Your task to perform on an android device: show emergency info Image 0: 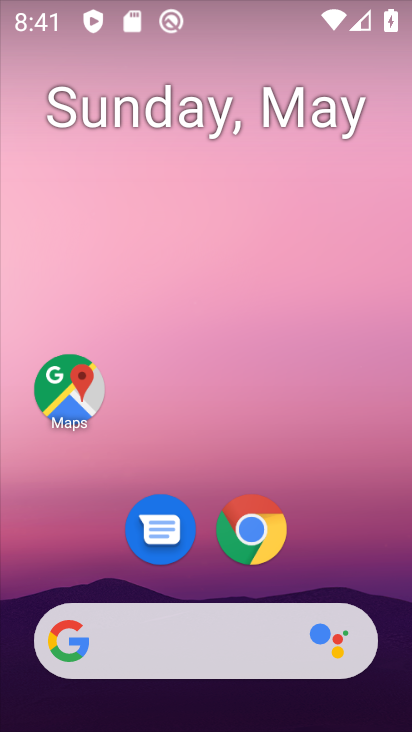
Step 0: drag from (347, 547) to (370, 1)
Your task to perform on an android device: show emergency info Image 1: 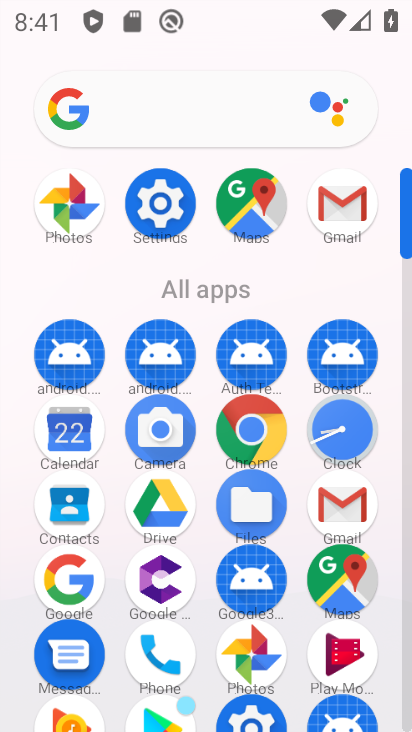
Step 1: click (153, 205)
Your task to perform on an android device: show emergency info Image 2: 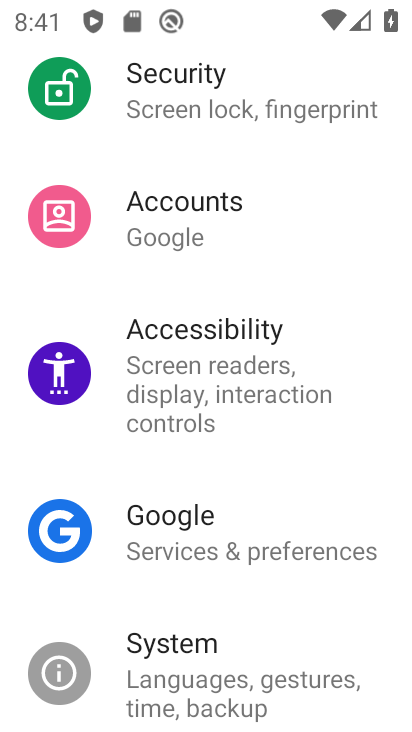
Step 2: drag from (314, 630) to (336, 0)
Your task to perform on an android device: show emergency info Image 3: 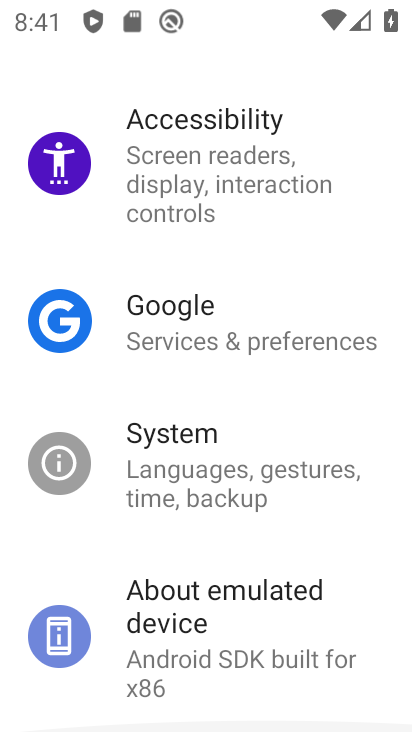
Step 3: drag from (301, 621) to (307, 385)
Your task to perform on an android device: show emergency info Image 4: 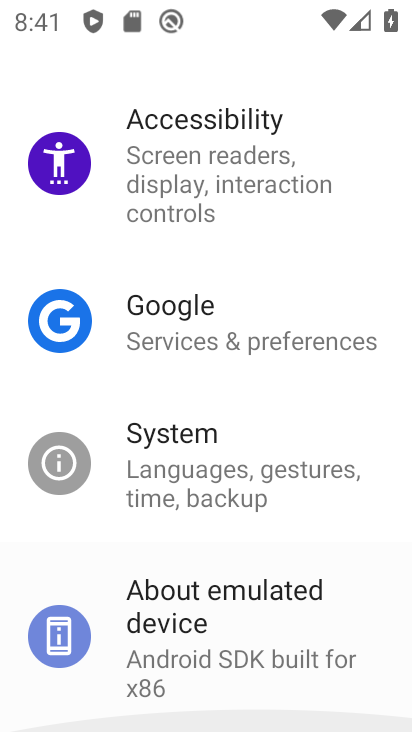
Step 4: click (264, 607)
Your task to perform on an android device: show emergency info Image 5: 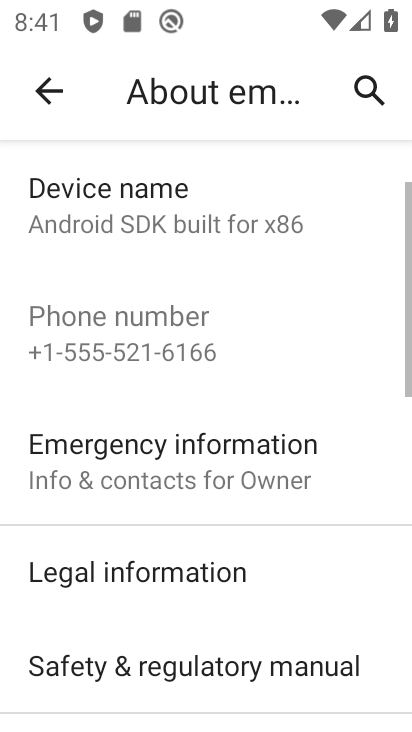
Step 5: click (178, 486)
Your task to perform on an android device: show emergency info Image 6: 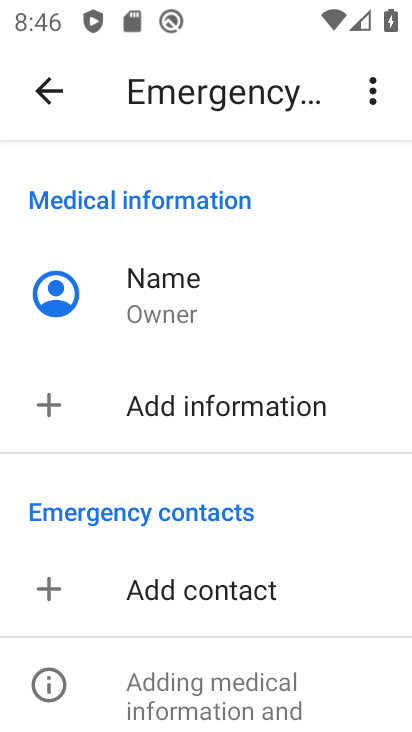
Step 6: task complete